Your task to perform on an android device: Go to calendar. Show me events next week Image 0: 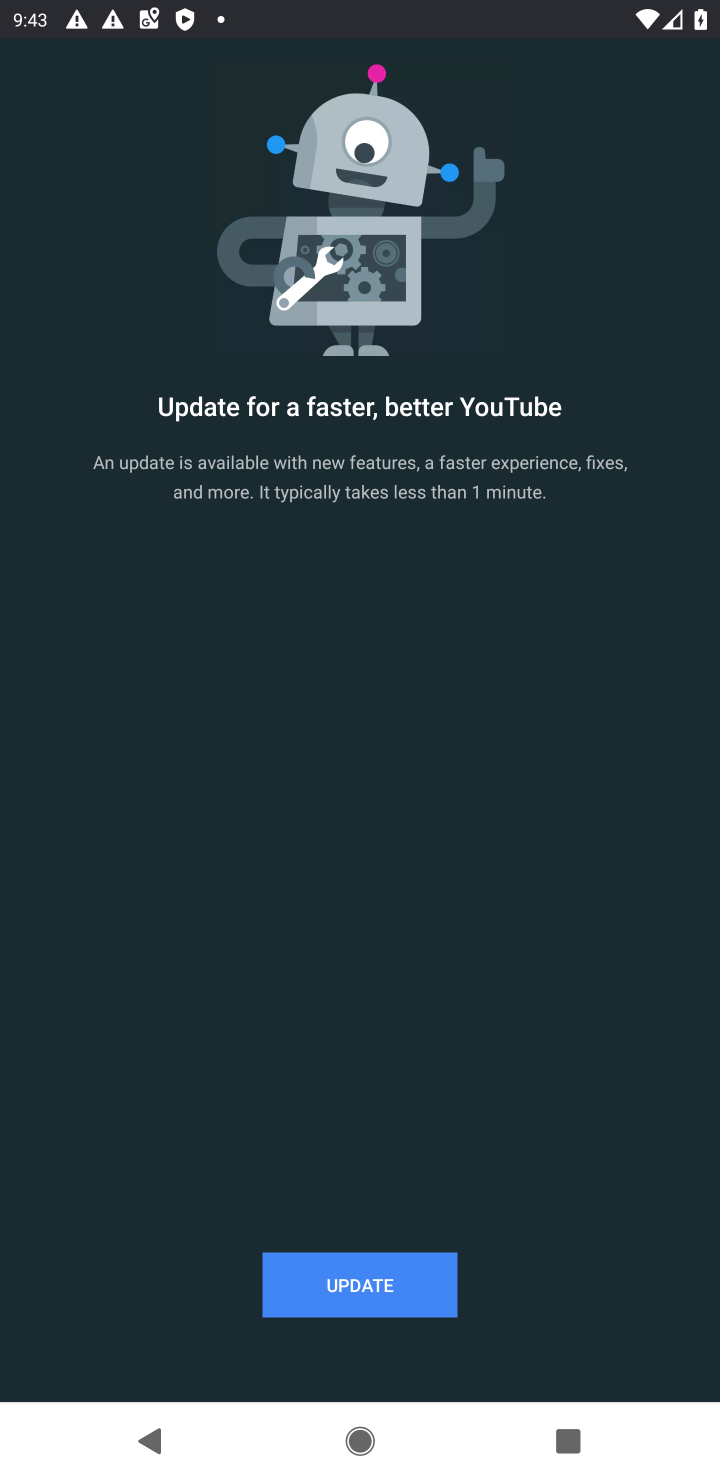
Step 0: press home button
Your task to perform on an android device: Go to calendar. Show me events next week Image 1: 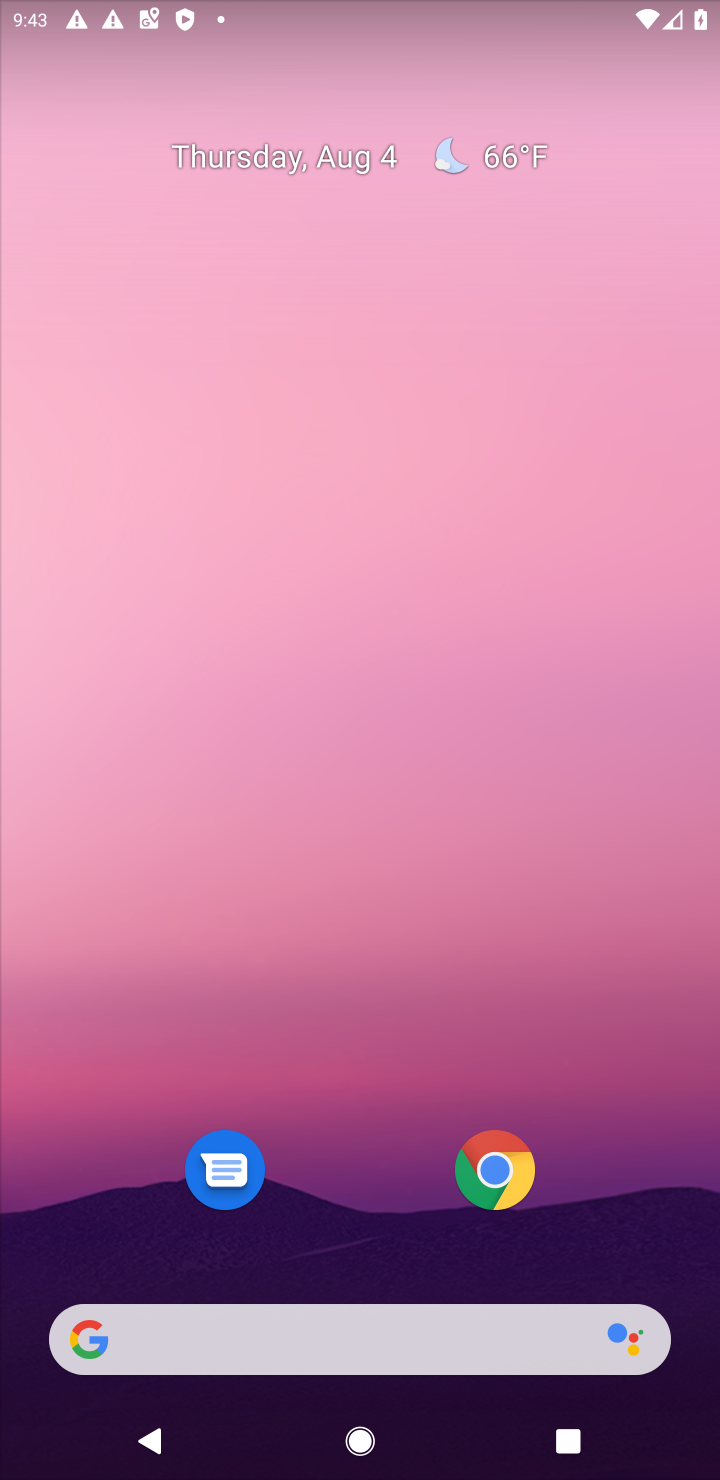
Step 1: drag from (388, 1151) to (402, 113)
Your task to perform on an android device: Go to calendar. Show me events next week Image 2: 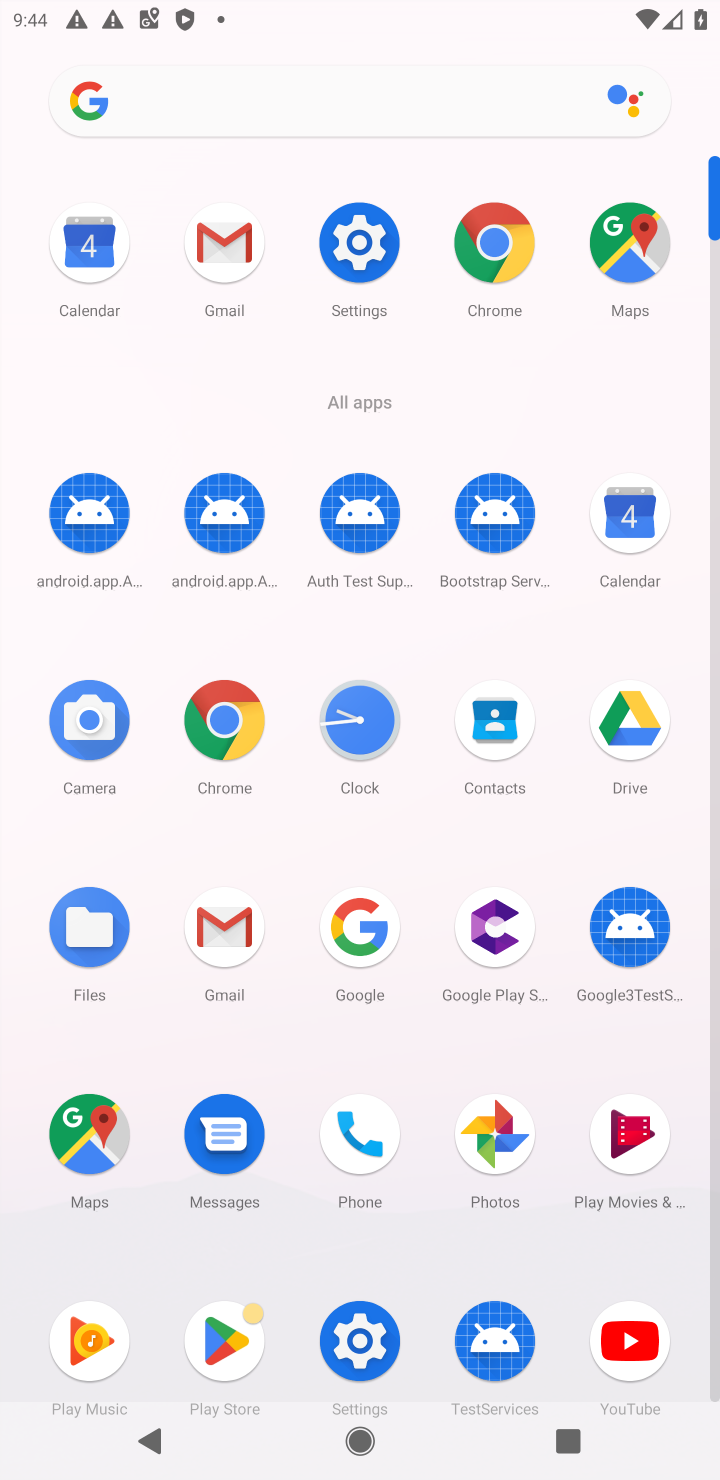
Step 2: click (612, 523)
Your task to perform on an android device: Go to calendar. Show me events next week Image 3: 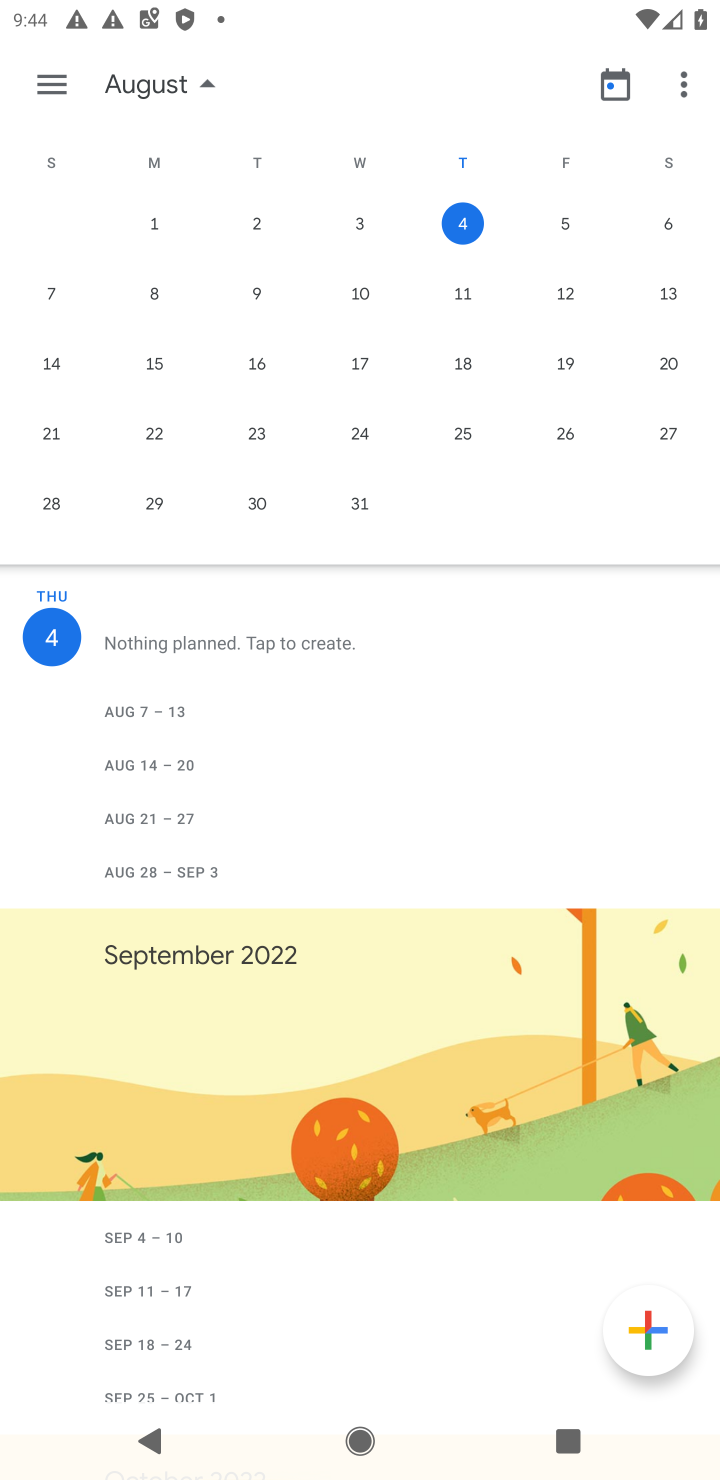
Step 3: click (453, 300)
Your task to perform on an android device: Go to calendar. Show me events next week Image 4: 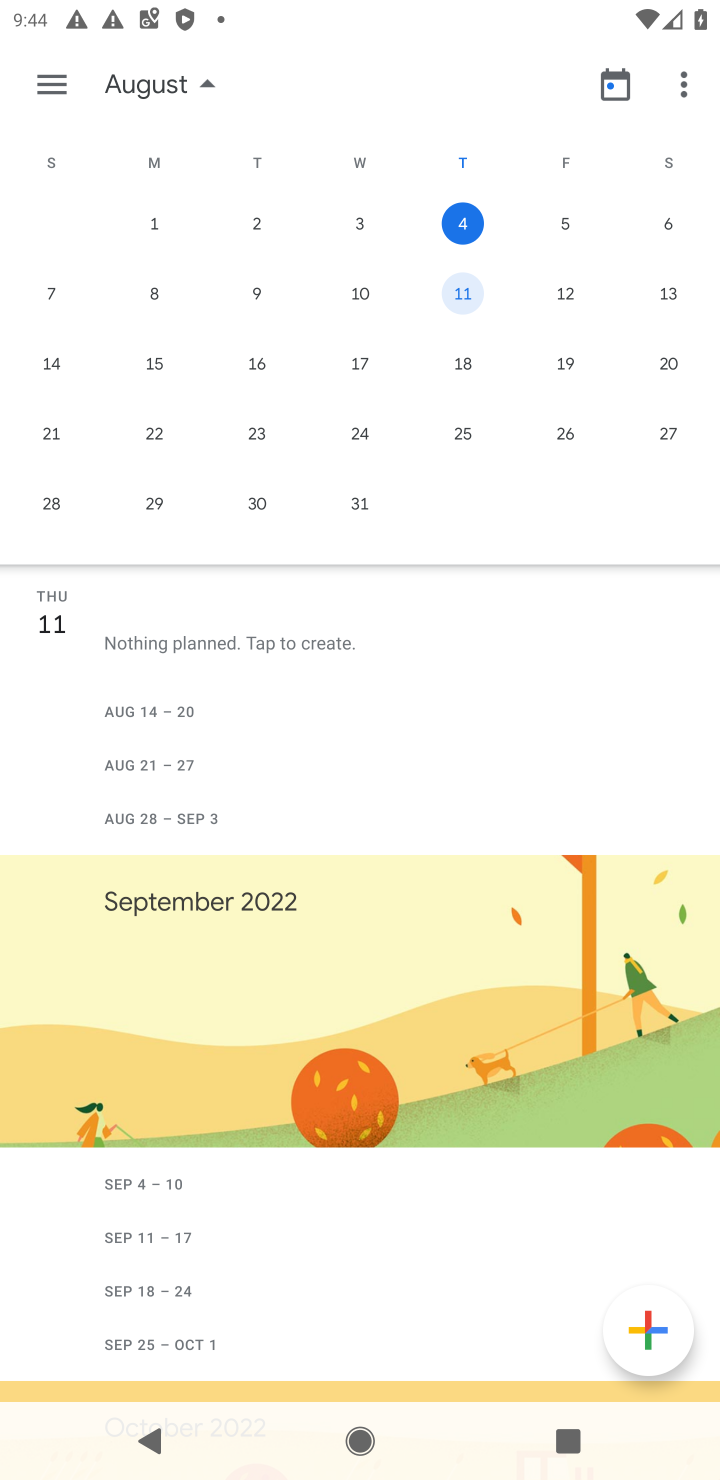
Step 4: task complete